Your task to perform on an android device: Go to Maps Image 0: 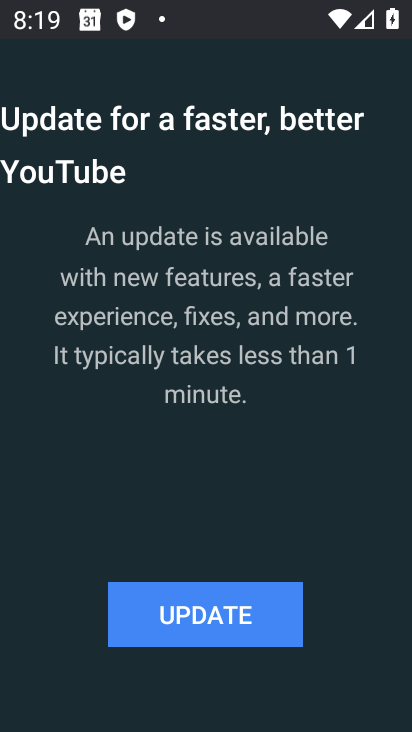
Step 0: press home button
Your task to perform on an android device: Go to Maps Image 1: 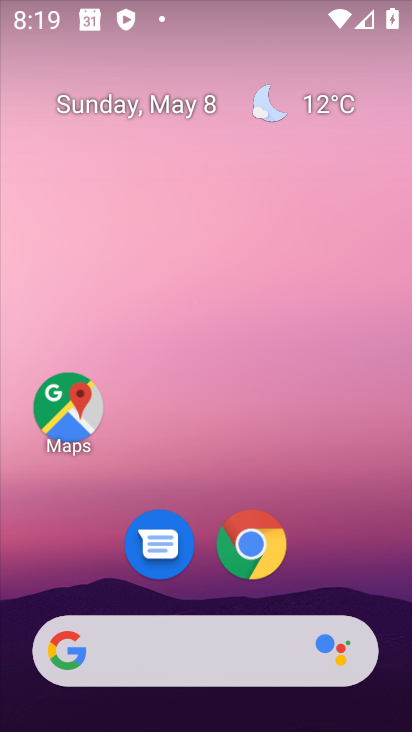
Step 1: click (60, 413)
Your task to perform on an android device: Go to Maps Image 2: 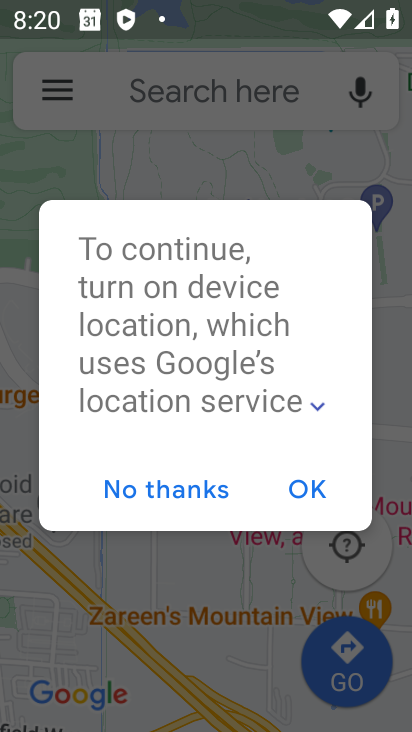
Step 2: click (305, 489)
Your task to perform on an android device: Go to Maps Image 3: 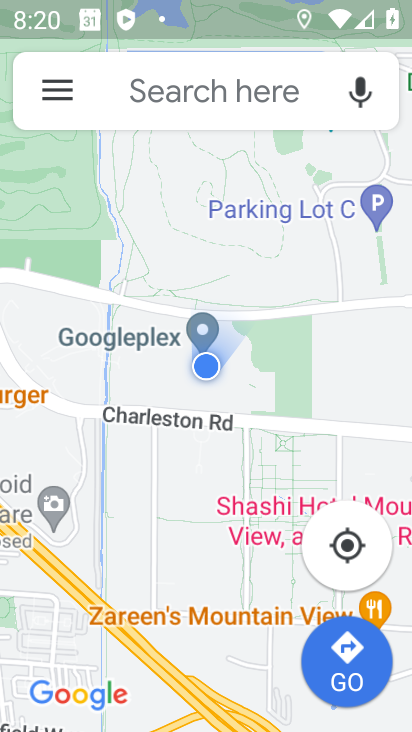
Step 3: task complete